Your task to perform on an android device: turn on translation in the chrome app Image 0: 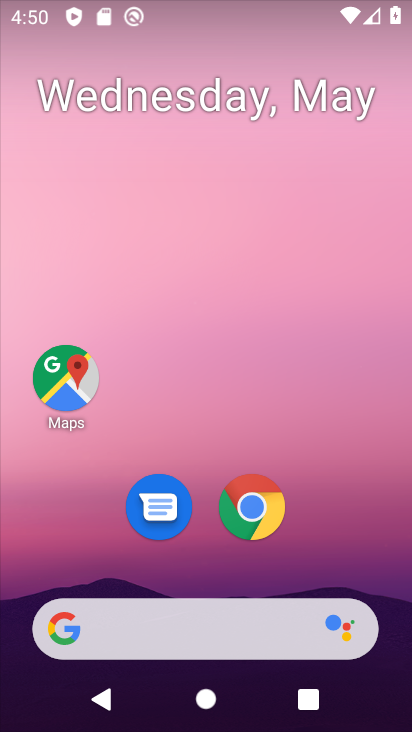
Step 0: click (252, 508)
Your task to perform on an android device: turn on translation in the chrome app Image 1: 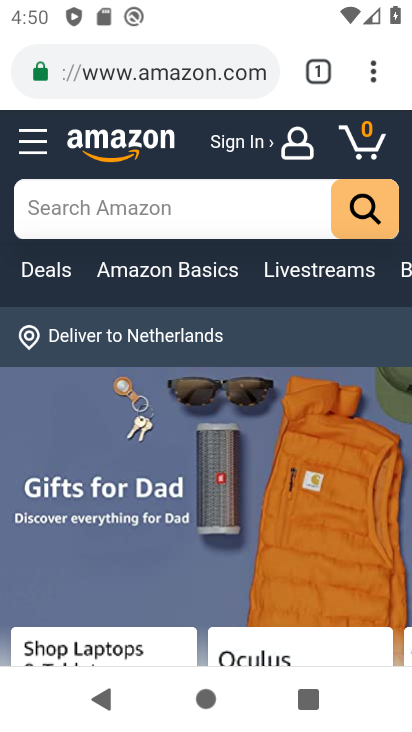
Step 1: click (374, 71)
Your task to perform on an android device: turn on translation in the chrome app Image 2: 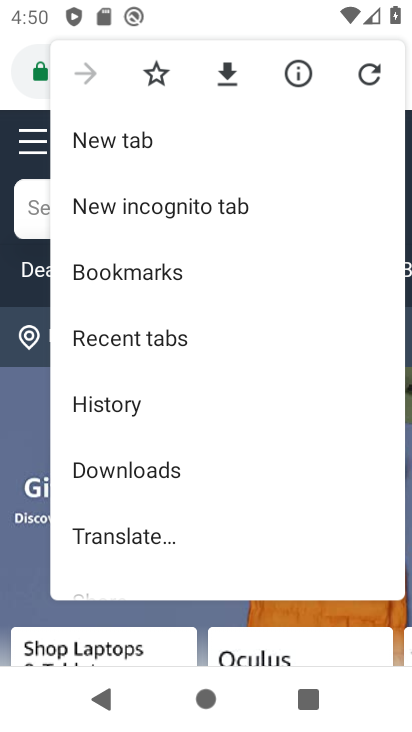
Step 2: drag from (206, 419) to (215, 315)
Your task to perform on an android device: turn on translation in the chrome app Image 3: 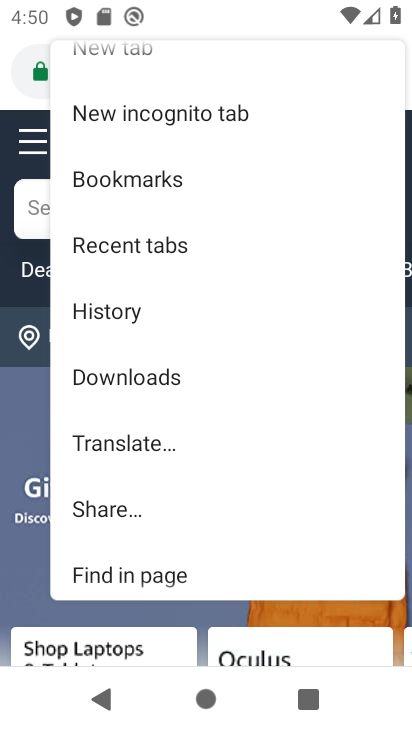
Step 3: click (223, 383)
Your task to perform on an android device: turn on translation in the chrome app Image 4: 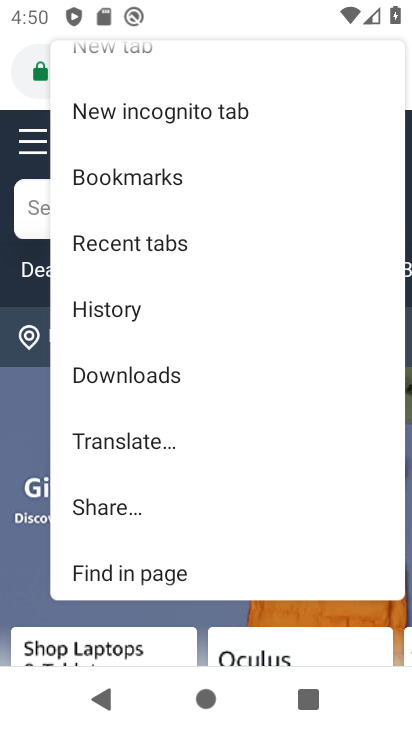
Step 4: drag from (169, 494) to (241, 290)
Your task to perform on an android device: turn on translation in the chrome app Image 5: 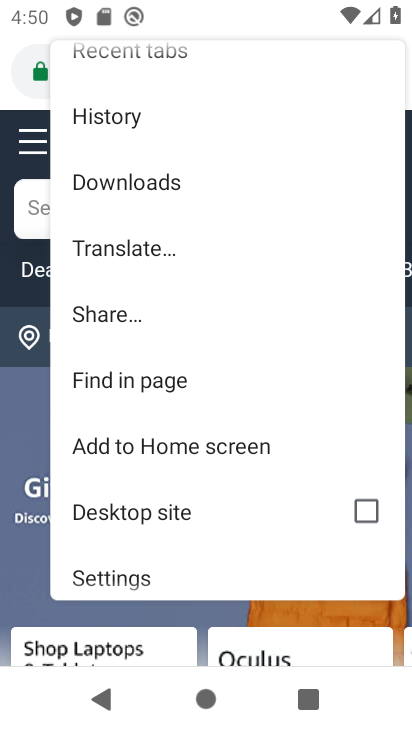
Step 5: drag from (232, 382) to (310, 239)
Your task to perform on an android device: turn on translation in the chrome app Image 6: 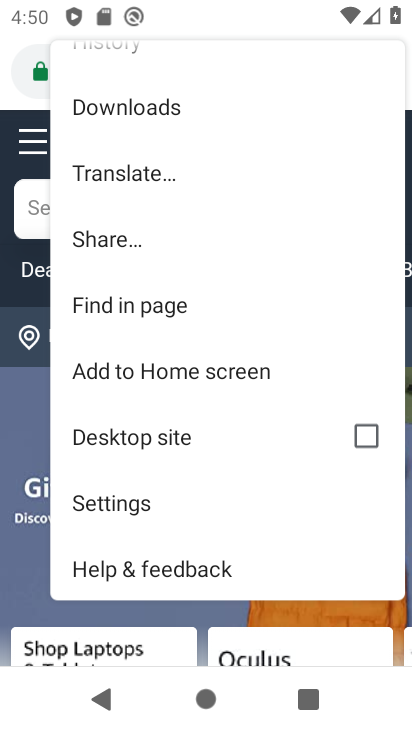
Step 6: click (133, 503)
Your task to perform on an android device: turn on translation in the chrome app Image 7: 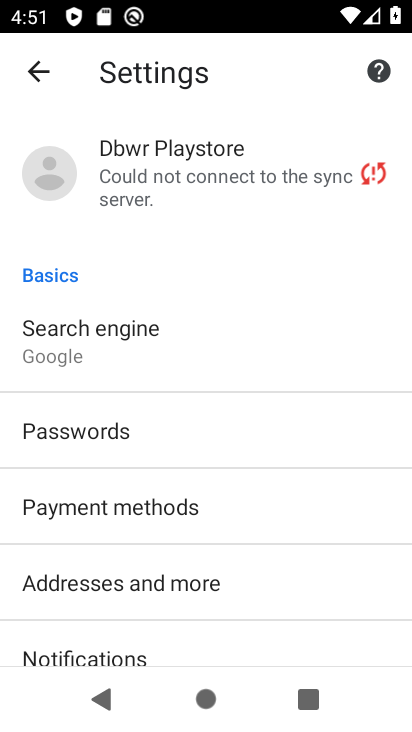
Step 7: drag from (180, 633) to (343, 259)
Your task to perform on an android device: turn on translation in the chrome app Image 8: 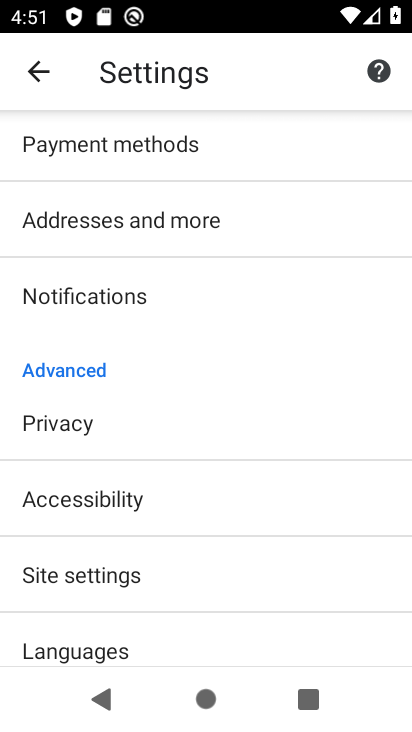
Step 8: drag from (252, 407) to (339, 205)
Your task to perform on an android device: turn on translation in the chrome app Image 9: 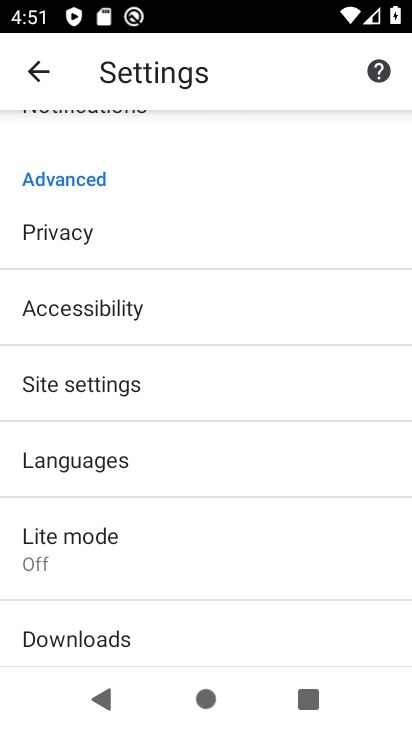
Step 9: click (84, 465)
Your task to perform on an android device: turn on translation in the chrome app Image 10: 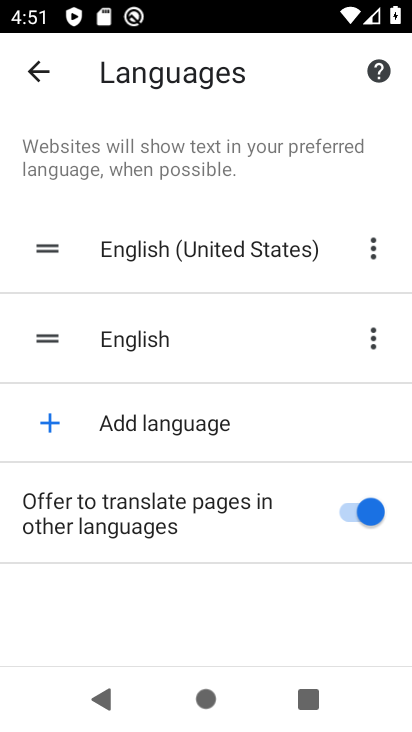
Step 10: task complete